Your task to perform on an android device: open sync settings in chrome Image 0: 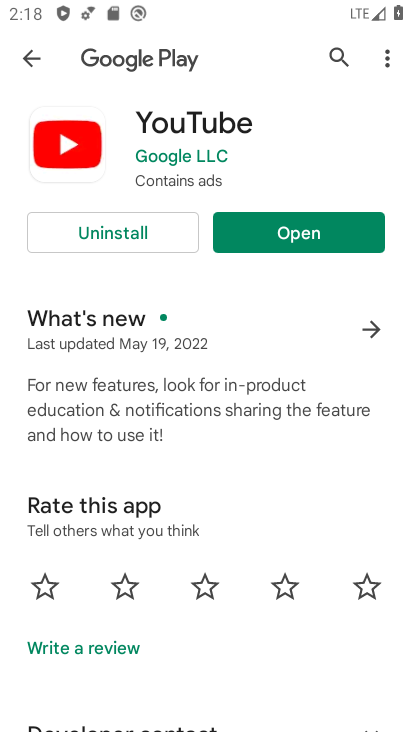
Step 0: press home button
Your task to perform on an android device: open sync settings in chrome Image 1: 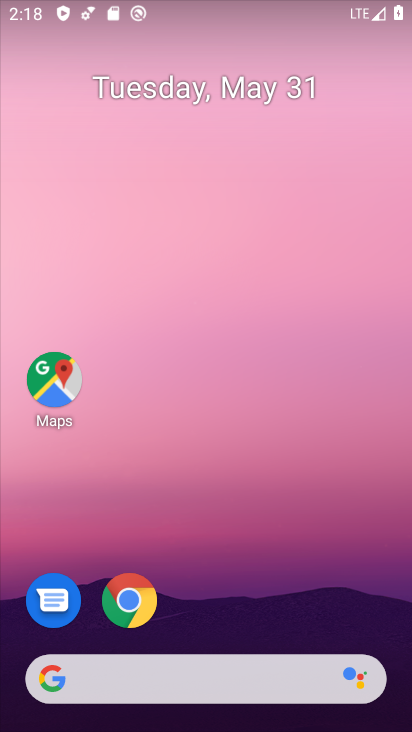
Step 1: click (127, 594)
Your task to perform on an android device: open sync settings in chrome Image 2: 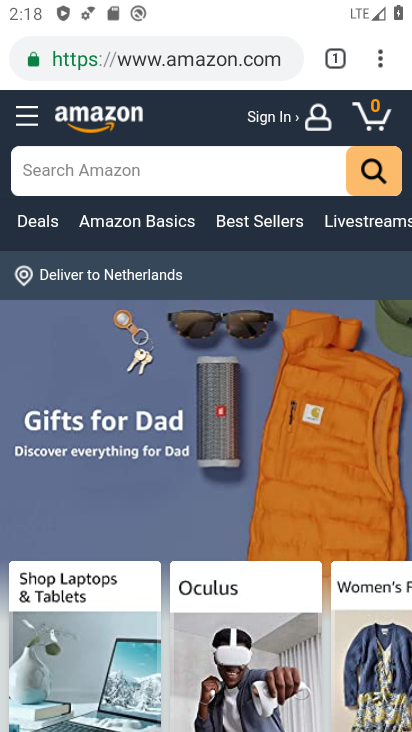
Step 2: click (378, 54)
Your task to perform on an android device: open sync settings in chrome Image 3: 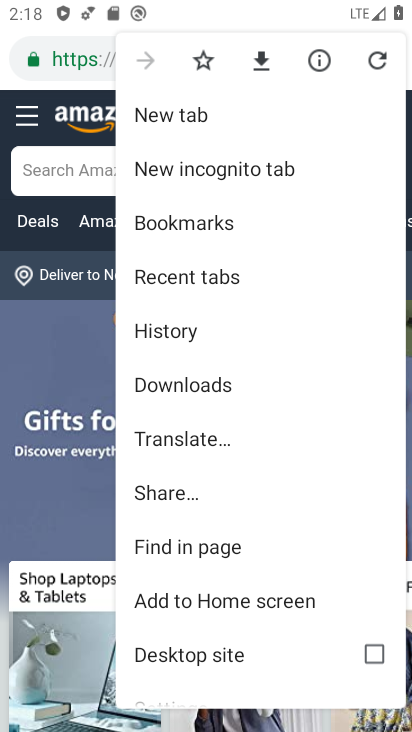
Step 3: drag from (255, 582) to (293, 191)
Your task to perform on an android device: open sync settings in chrome Image 4: 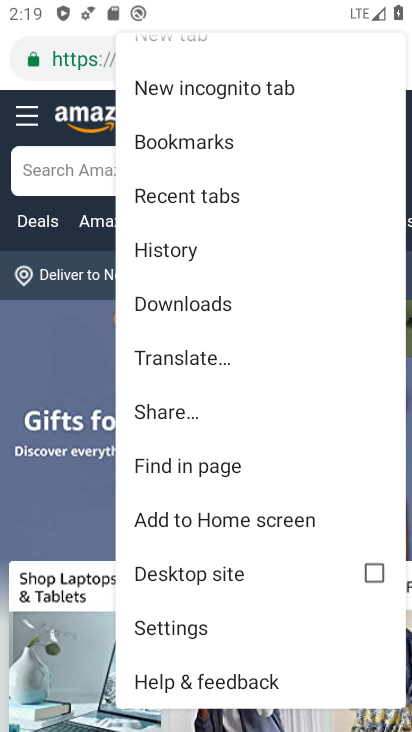
Step 4: click (216, 624)
Your task to perform on an android device: open sync settings in chrome Image 5: 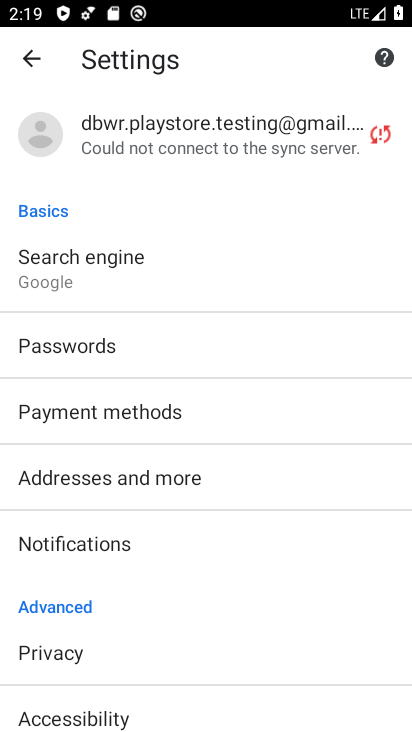
Step 5: click (191, 136)
Your task to perform on an android device: open sync settings in chrome Image 6: 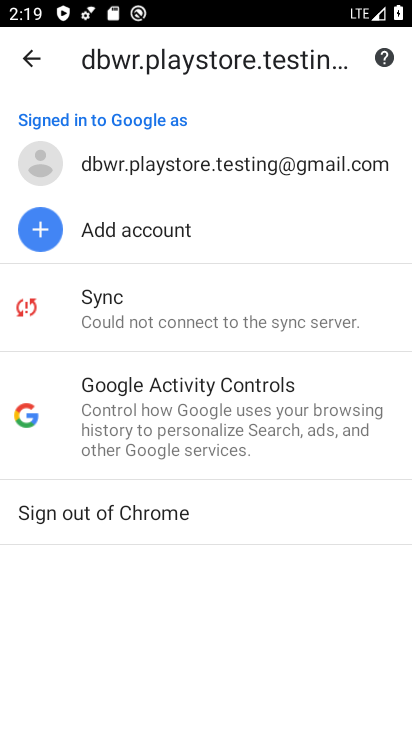
Step 6: click (163, 304)
Your task to perform on an android device: open sync settings in chrome Image 7: 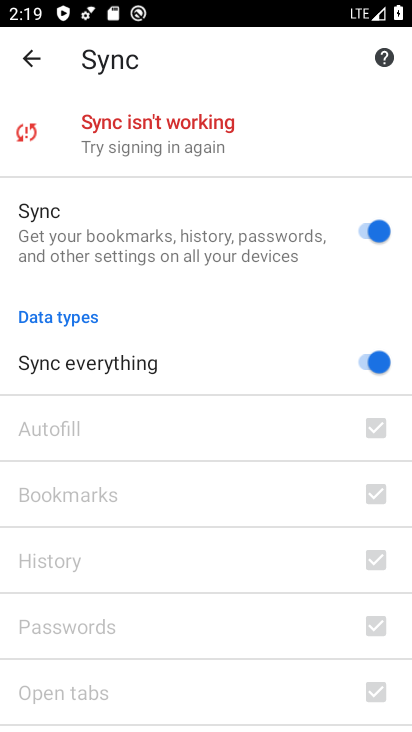
Step 7: task complete